Your task to perform on an android device: set the stopwatch Image 0: 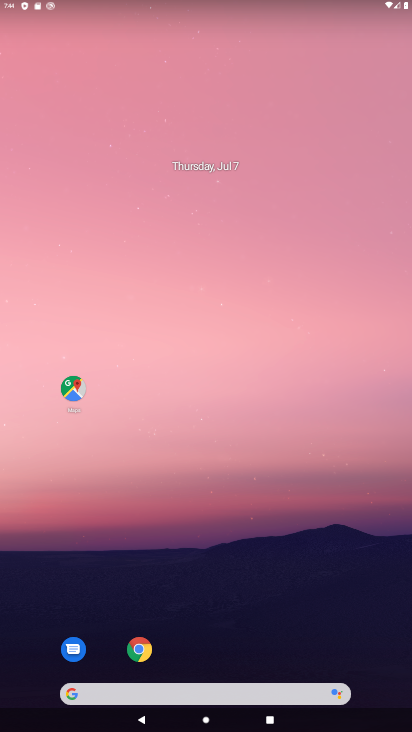
Step 0: drag from (211, 659) to (240, 78)
Your task to perform on an android device: set the stopwatch Image 1: 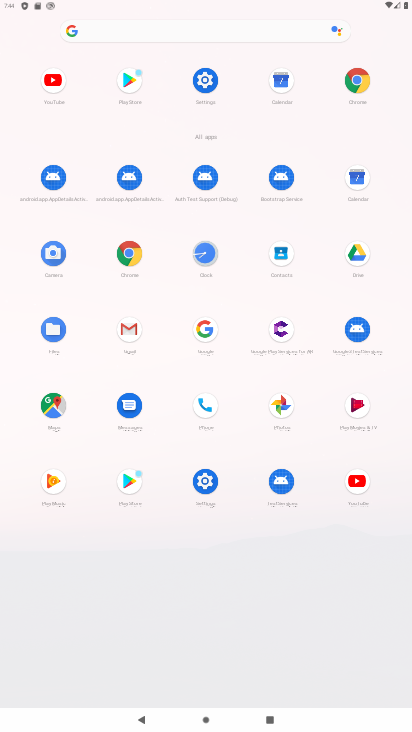
Step 1: click (203, 249)
Your task to perform on an android device: set the stopwatch Image 2: 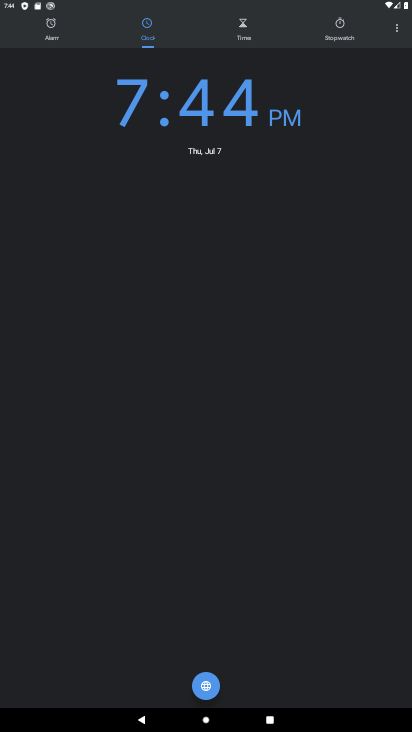
Step 2: click (340, 22)
Your task to perform on an android device: set the stopwatch Image 3: 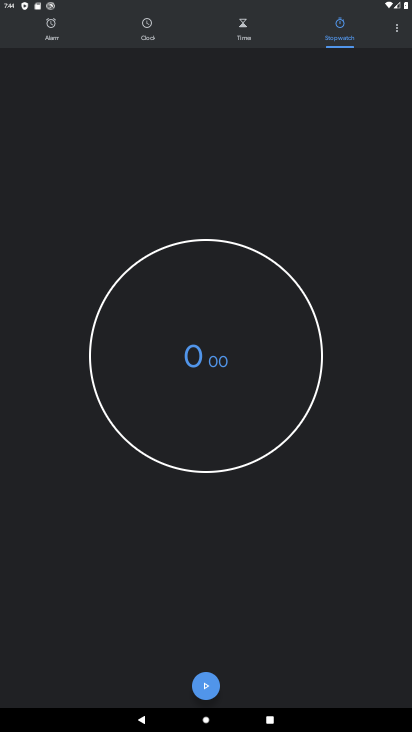
Step 3: click (204, 681)
Your task to perform on an android device: set the stopwatch Image 4: 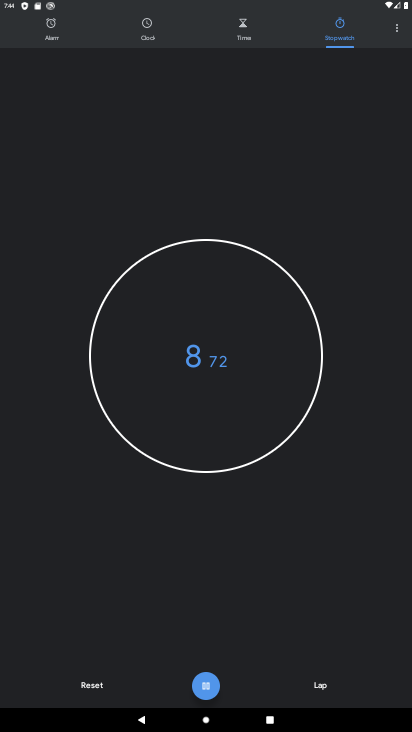
Step 4: task complete